Your task to perform on an android device: turn pop-ups off in chrome Image 0: 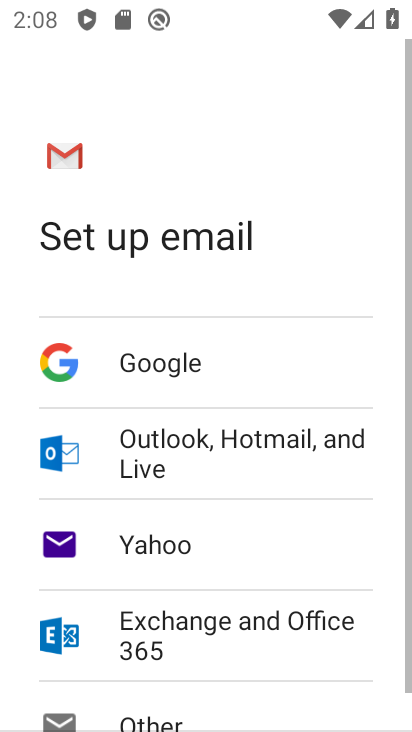
Step 0: press home button
Your task to perform on an android device: turn pop-ups off in chrome Image 1: 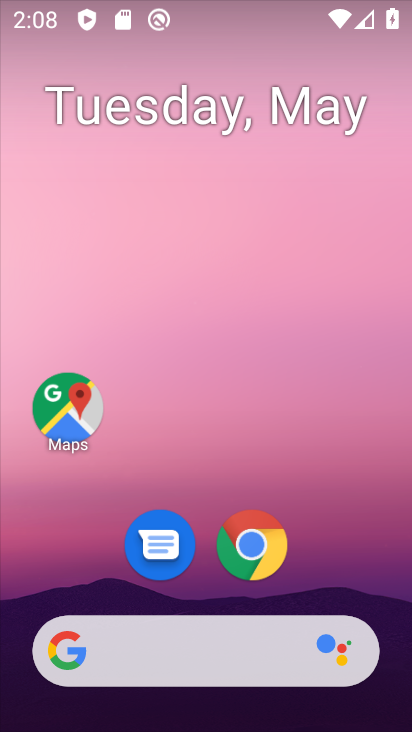
Step 1: click (256, 554)
Your task to perform on an android device: turn pop-ups off in chrome Image 2: 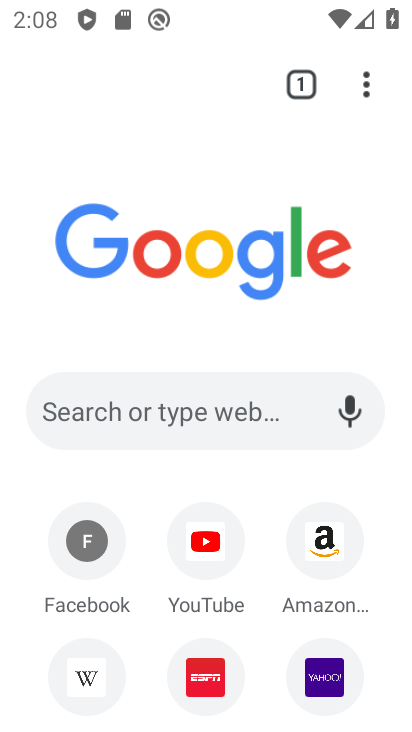
Step 2: click (369, 86)
Your task to perform on an android device: turn pop-ups off in chrome Image 3: 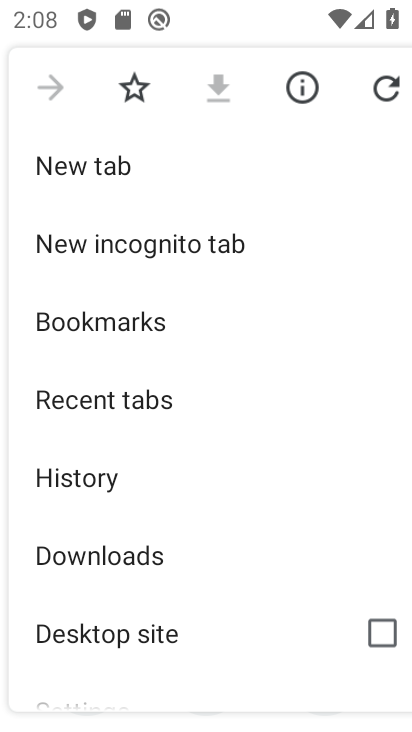
Step 3: drag from (232, 603) to (302, 234)
Your task to perform on an android device: turn pop-ups off in chrome Image 4: 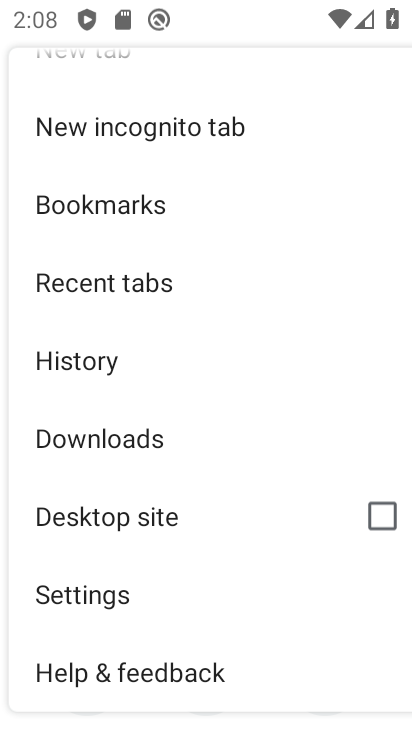
Step 4: click (143, 605)
Your task to perform on an android device: turn pop-ups off in chrome Image 5: 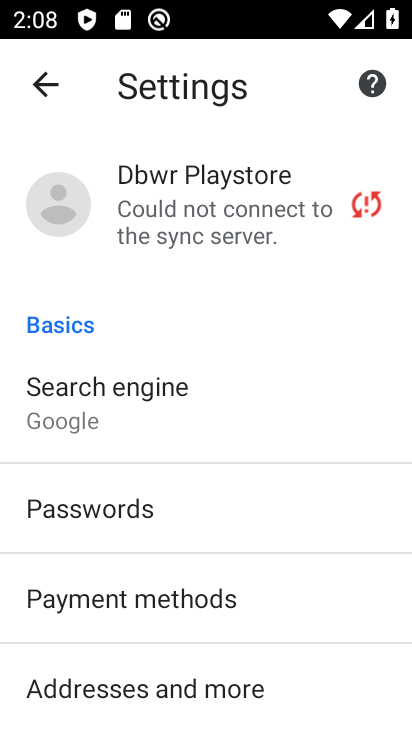
Step 5: drag from (185, 652) to (260, 224)
Your task to perform on an android device: turn pop-ups off in chrome Image 6: 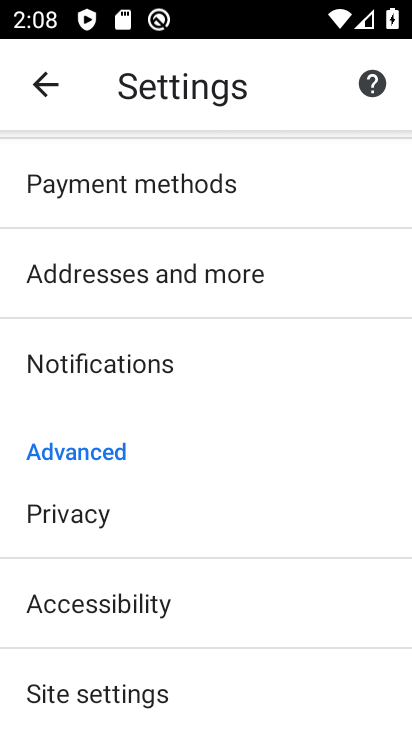
Step 6: click (161, 694)
Your task to perform on an android device: turn pop-ups off in chrome Image 7: 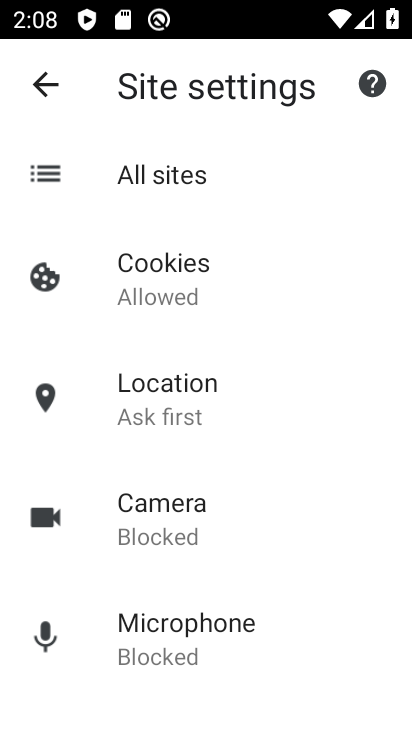
Step 7: drag from (211, 654) to (272, 151)
Your task to perform on an android device: turn pop-ups off in chrome Image 8: 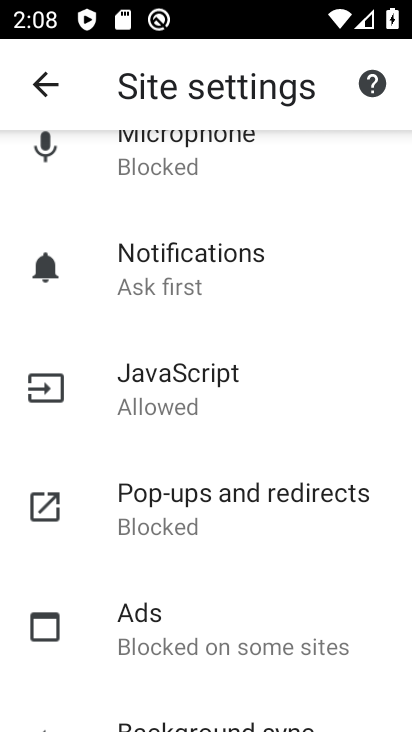
Step 8: click (224, 517)
Your task to perform on an android device: turn pop-ups off in chrome Image 9: 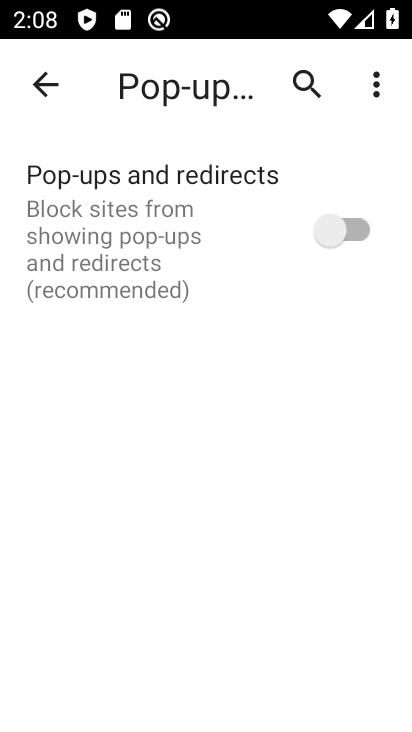
Step 9: task complete